Your task to perform on an android device: open a bookmark in the chrome app Image 0: 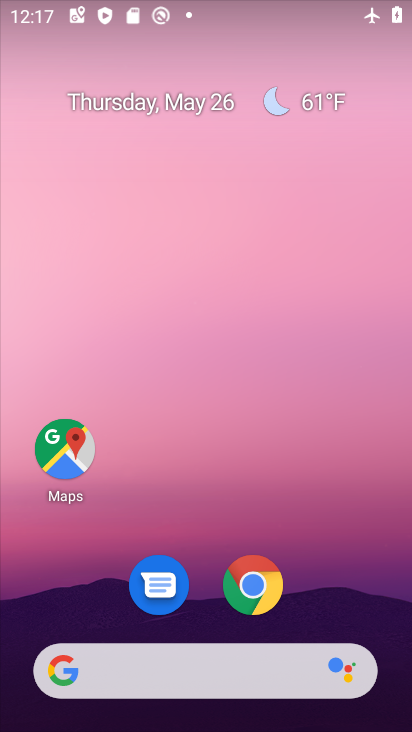
Step 0: click (250, 581)
Your task to perform on an android device: open a bookmark in the chrome app Image 1: 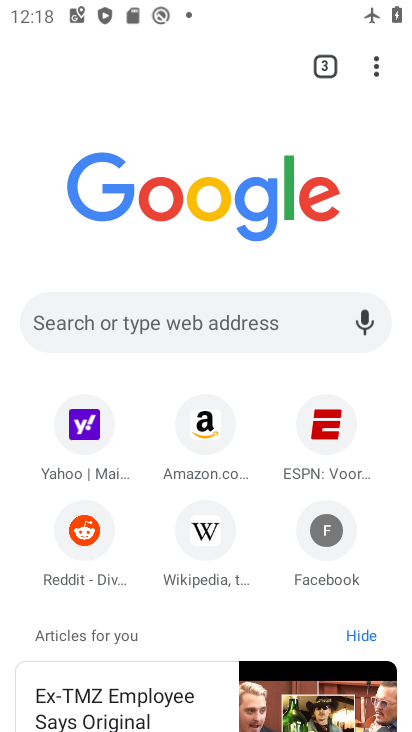
Step 1: click (373, 69)
Your task to perform on an android device: open a bookmark in the chrome app Image 2: 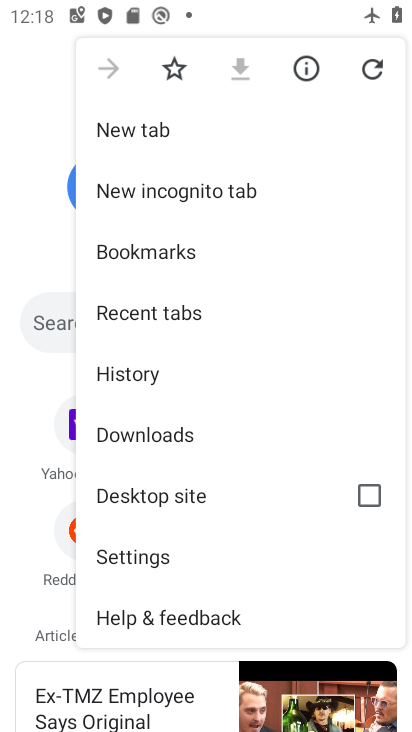
Step 2: click (182, 256)
Your task to perform on an android device: open a bookmark in the chrome app Image 3: 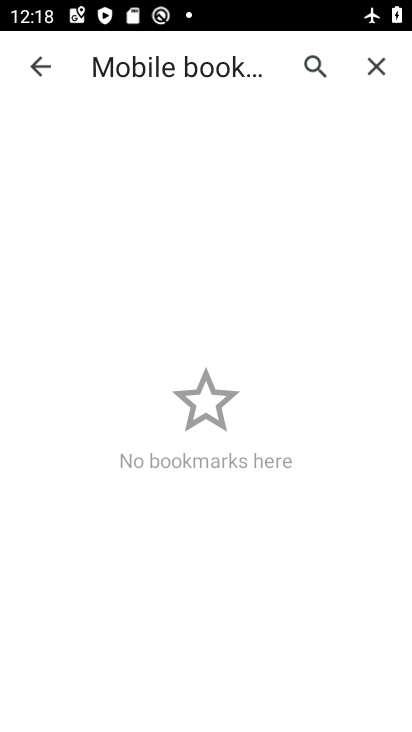
Step 3: task complete